Your task to perform on an android device: open chrome privacy settings Image 0: 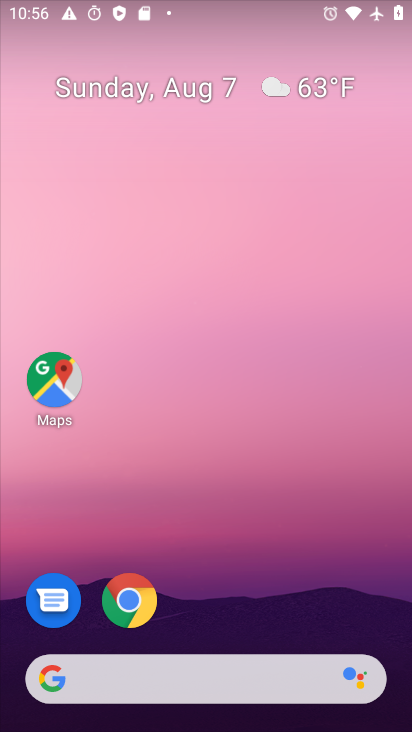
Step 0: drag from (312, 640) to (301, 89)
Your task to perform on an android device: open chrome privacy settings Image 1: 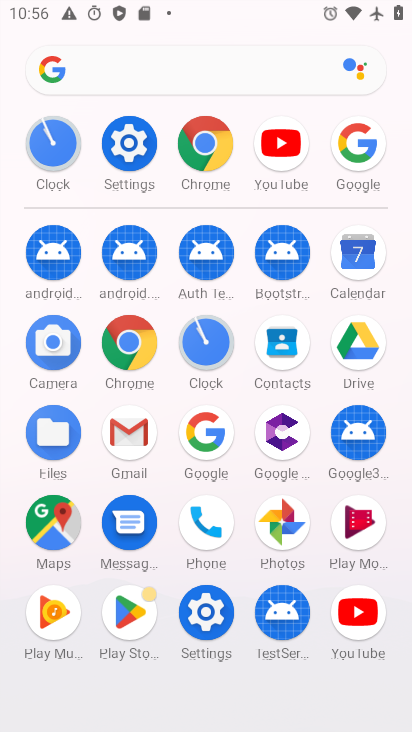
Step 1: click (199, 156)
Your task to perform on an android device: open chrome privacy settings Image 2: 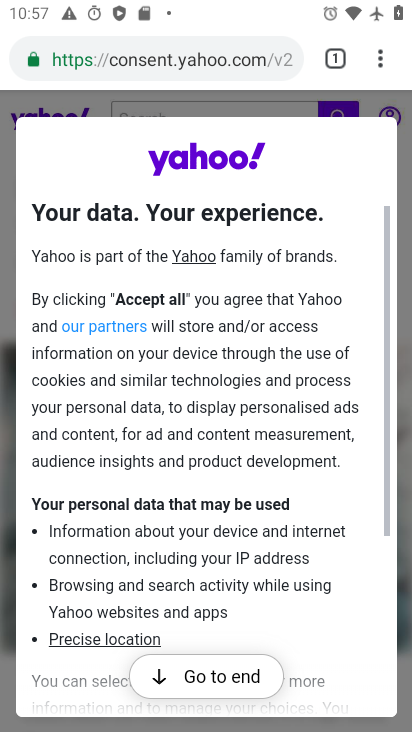
Step 2: click (382, 63)
Your task to perform on an android device: open chrome privacy settings Image 3: 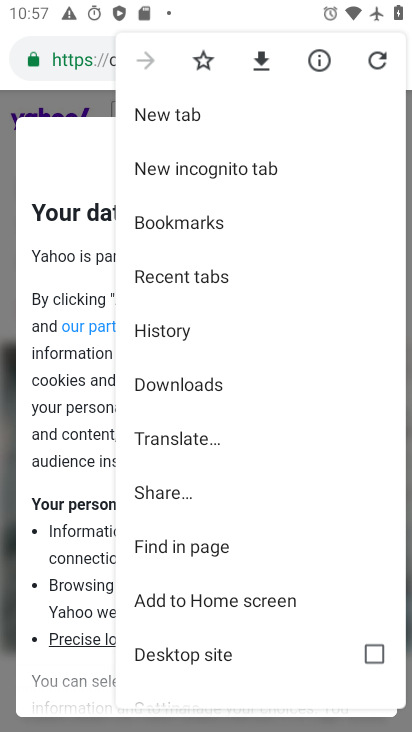
Step 3: drag from (220, 655) to (316, 155)
Your task to perform on an android device: open chrome privacy settings Image 4: 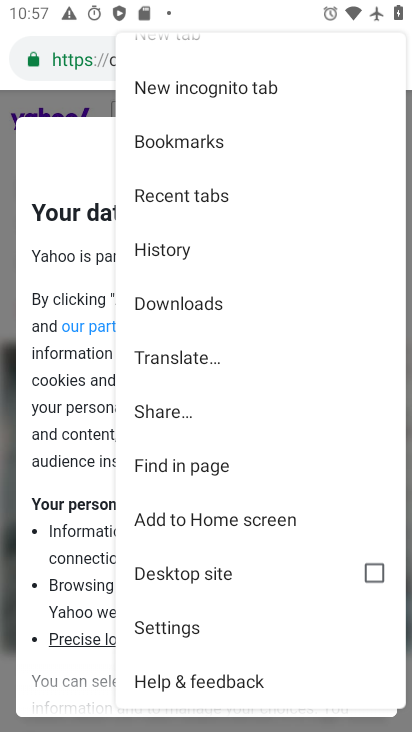
Step 4: click (188, 631)
Your task to perform on an android device: open chrome privacy settings Image 5: 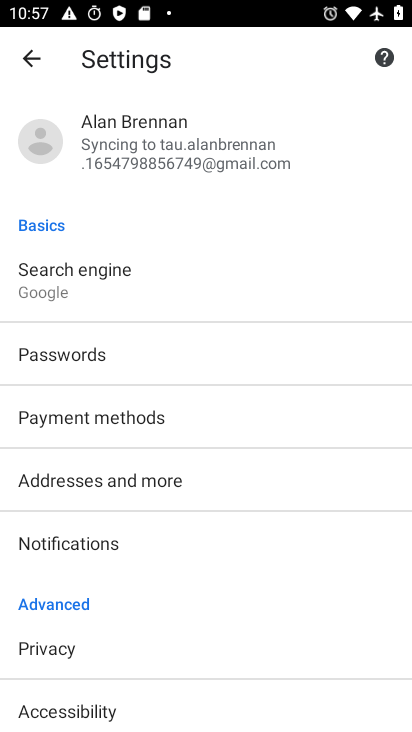
Step 5: drag from (188, 631) to (193, 192)
Your task to perform on an android device: open chrome privacy settings Image 6: 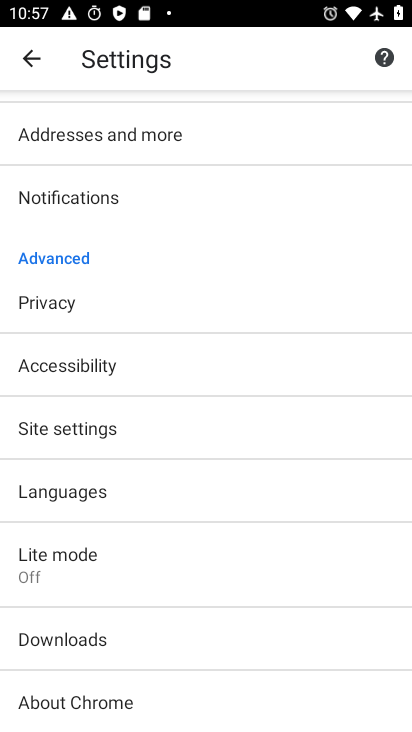
Step 6: click (87, 310)
Your task to perform on an android device: open chrome privacy settings Image 7: 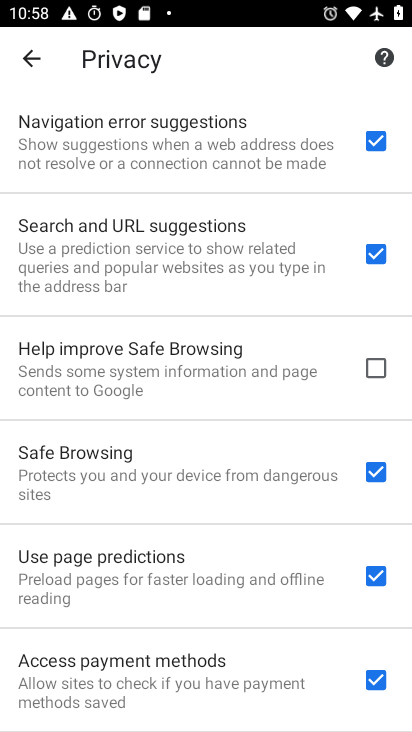
Step 7: click (87, 310)
Your task to perform on an android device: open chrome privacy settings Image 8: 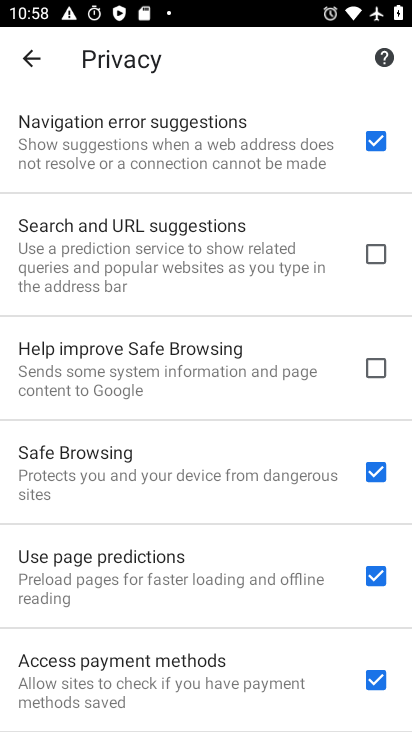
Step 8: task complete